Your task to perform on an android device: Empty the shopping cart on ebay. Add "acer predator" to the cart on ebay Image 0: 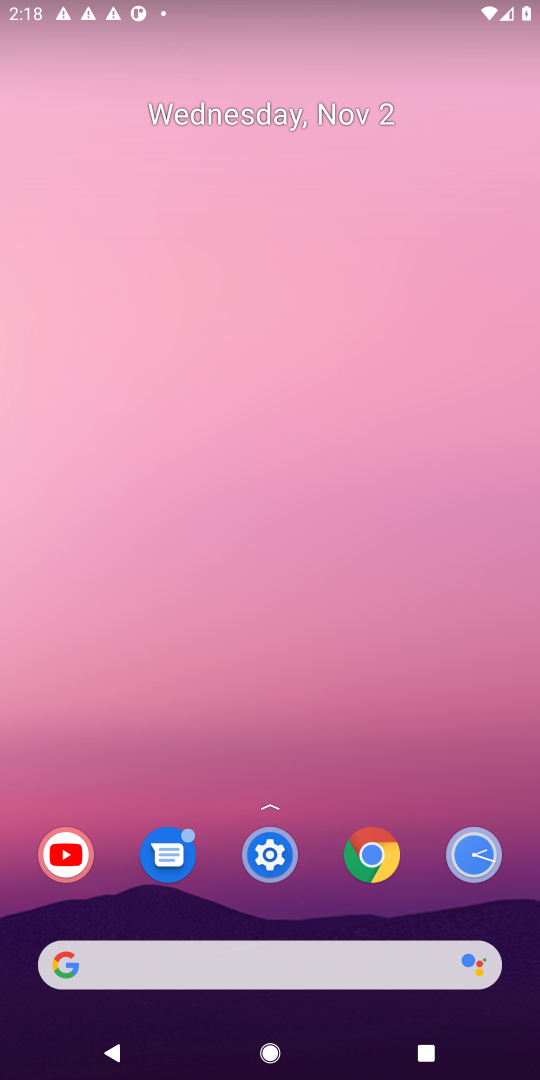
Step 0: click (180, 970)
Your task to perform on an android device: Empty the shopping cart on ebay. Add "acer predator" to the cart on ebay Image 1: 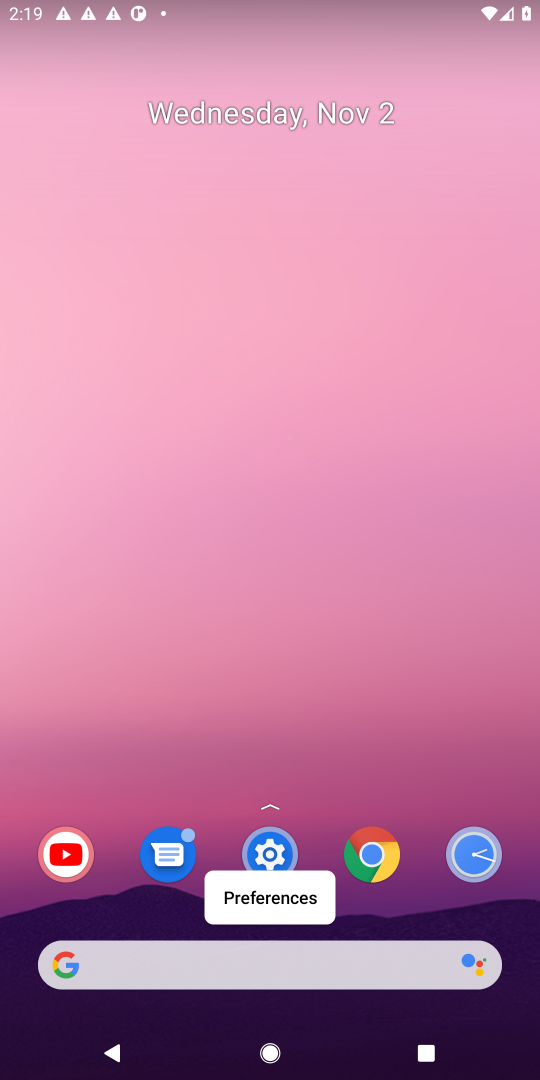
Step 1: click (180, 970)
Your task to perform on an android device: Empty the shopping cart on ebay. Add "acer predator" to the cart on ebay Image 2: 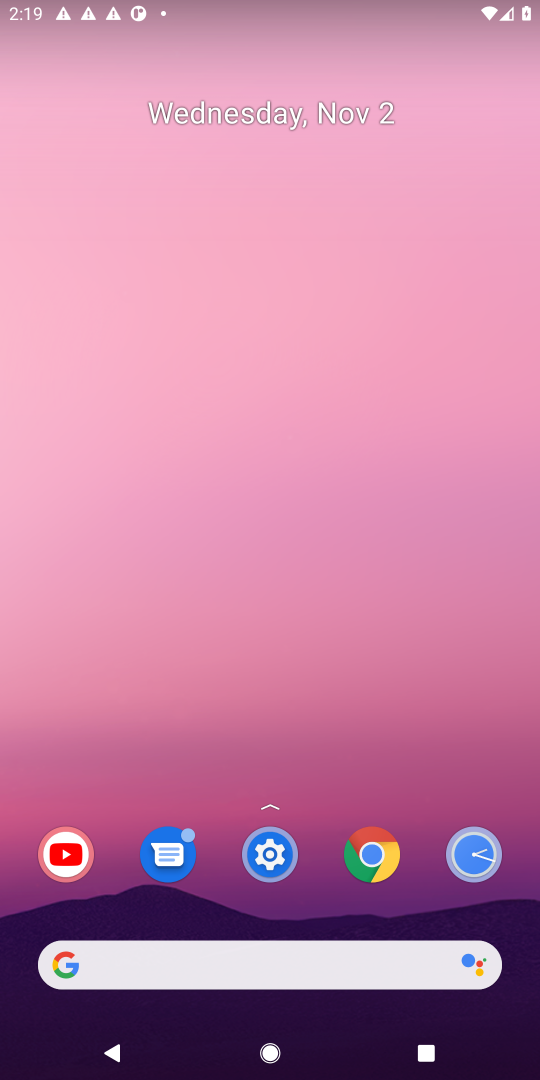
Step 2: click (180, 970)
Your task to perform on an android device: Empty the shopping cart on ebay. Add "acer predator" to the cart on ebay Image 3: 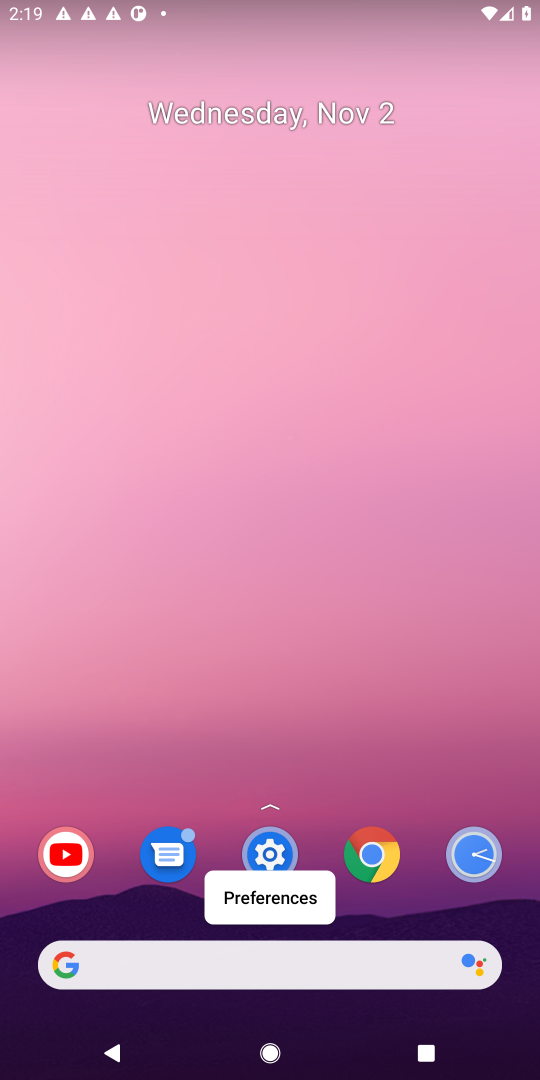
Step 3: click (180, 970)
Your task to perform on an android device: Empty the shopping cart on ebay. Add "acer predator" to the cart on ebay Image 4: 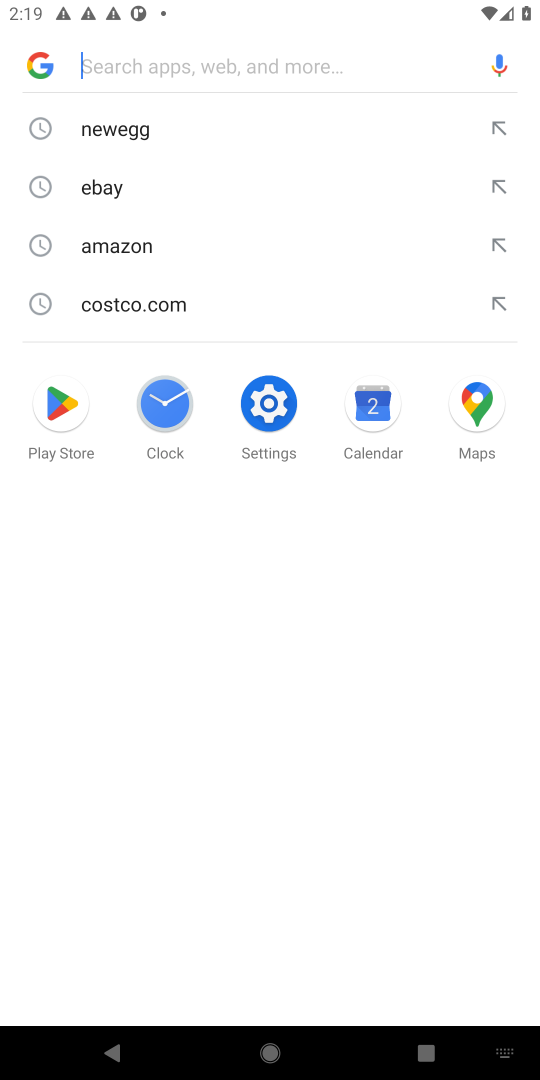
Step 4: type " ebay"
Your task to perform on an android device: Empty the shopping cart on ebay. Add "acer predator" to the cart on ebay Image 5: 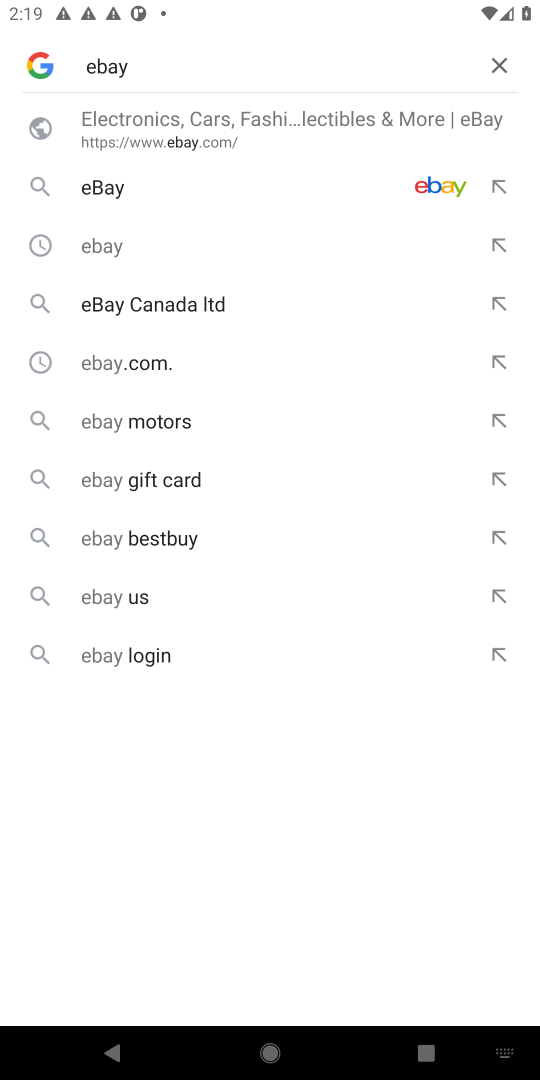
Step 5: type ""
Your task to perform on an android device: Empty the shopping cart on ebay. Add "acer predator" to the cart on ebay Image 6: 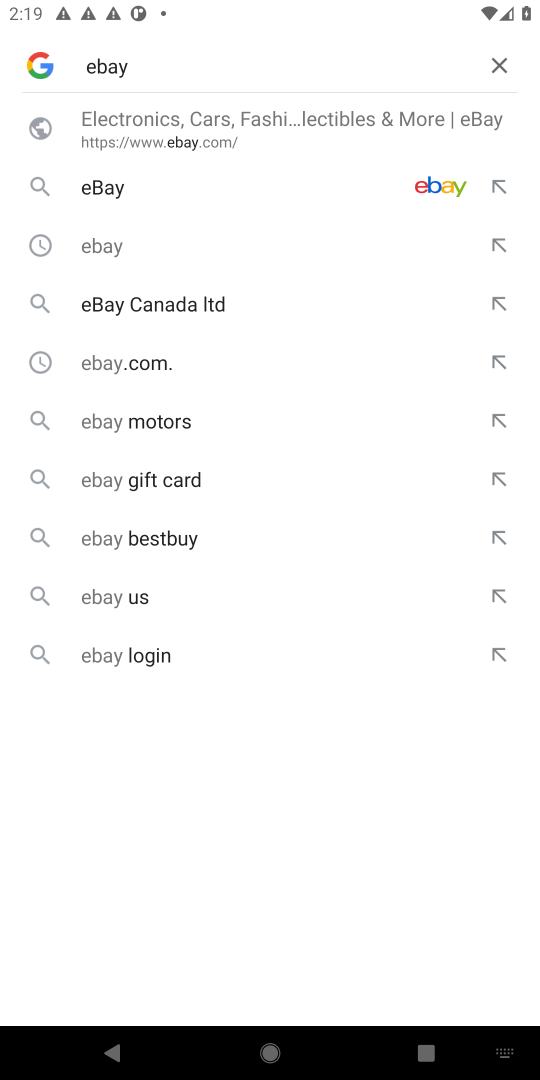
Step 6: press enter
Your task to perform on an android device: Empty the shopping cart on ebay. Add "acer predator" to the cart on ebay Image 7: 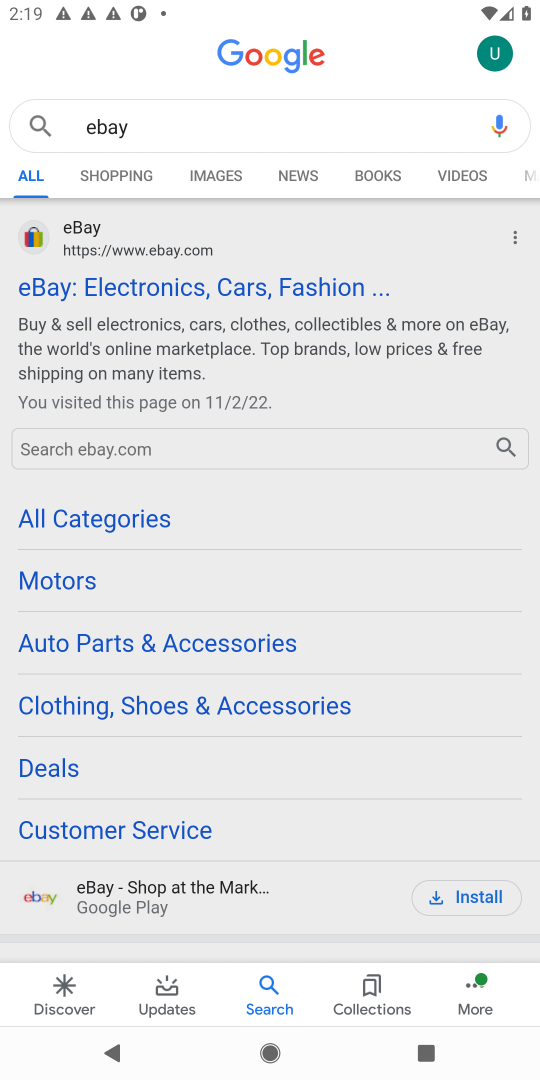
Step 7: click (143, 292)
Your task to perform on an android device: Empty the shopping cart on ebay. Add "acer predator" to the cart on ebay Image 8: 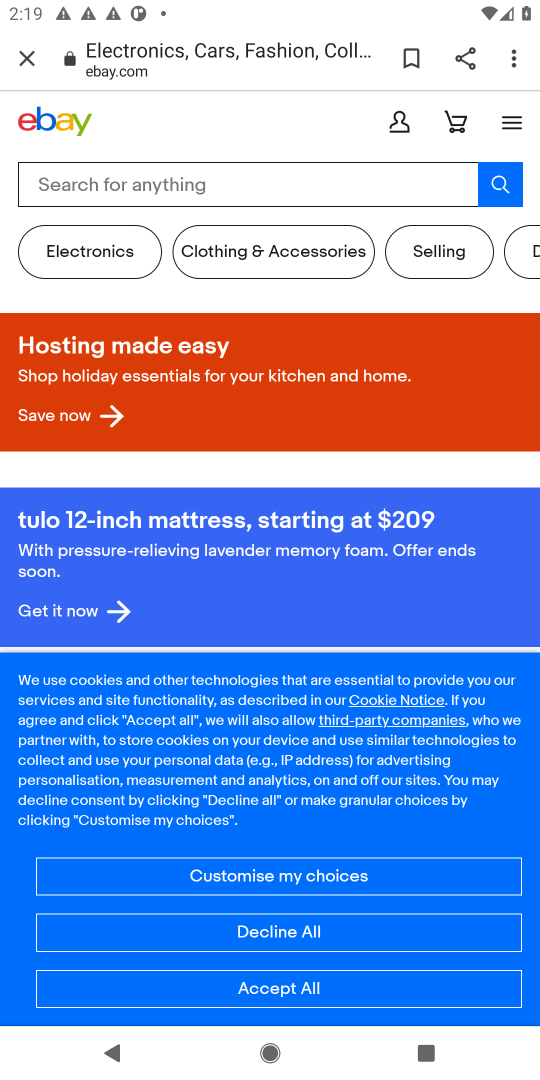
Step 8: click (280, 991)
Your task to perform on an android device: Empty the shopping cart on ebay. Add "acer predator" to the cart on ebay Image 9: 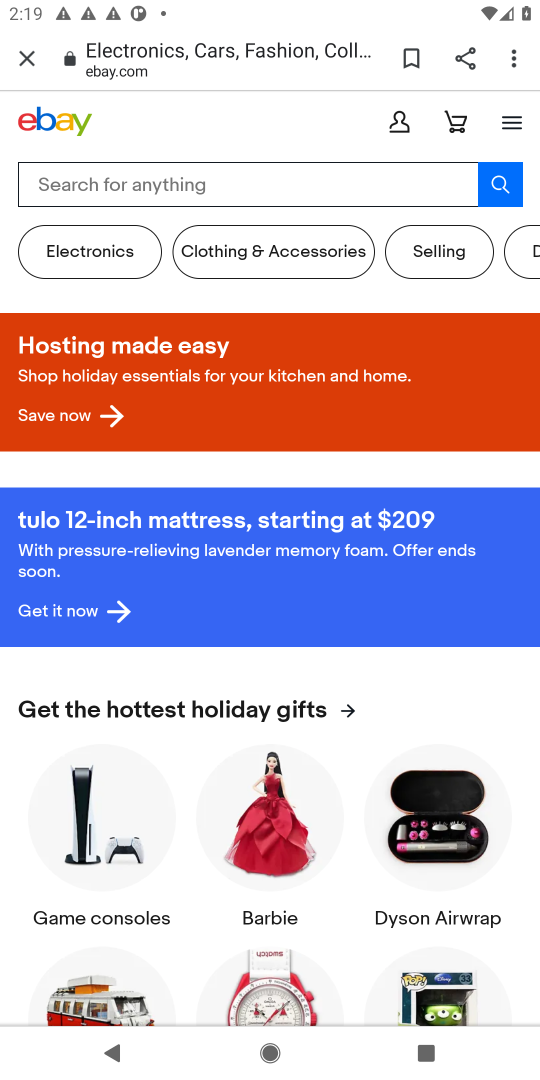
Step 9: click (137, 189)
Your task to perform on an android device: Empty the shopping cart on ebay. Add "acer predator" to the cart on ebay Image 10: 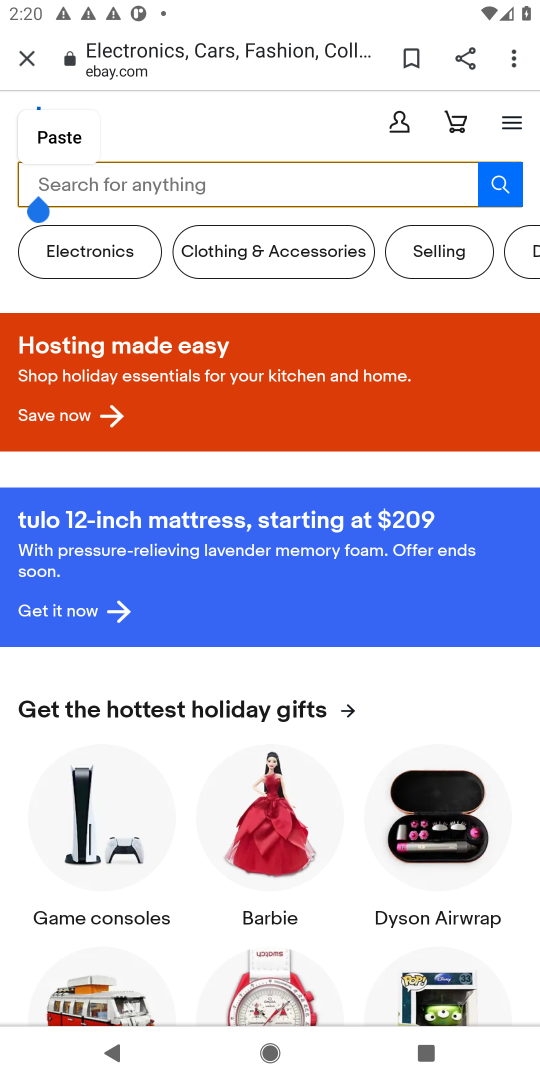
Step 10: type "acer predator"
Your task to perform on an android device: Empty the shopping cart on ebay. Add "acer predator" to the cart on ebay Image 11: 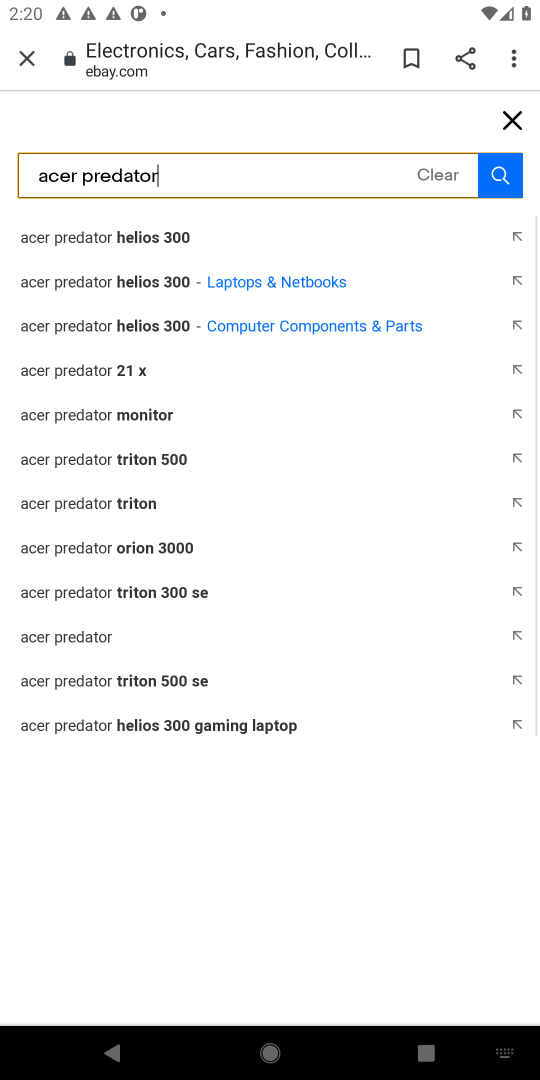
Step 11: type ""
Your task to perform on an android device: Empty the shopping cart on ebay. Add "acer predator" to the cart on ebay Image 12: 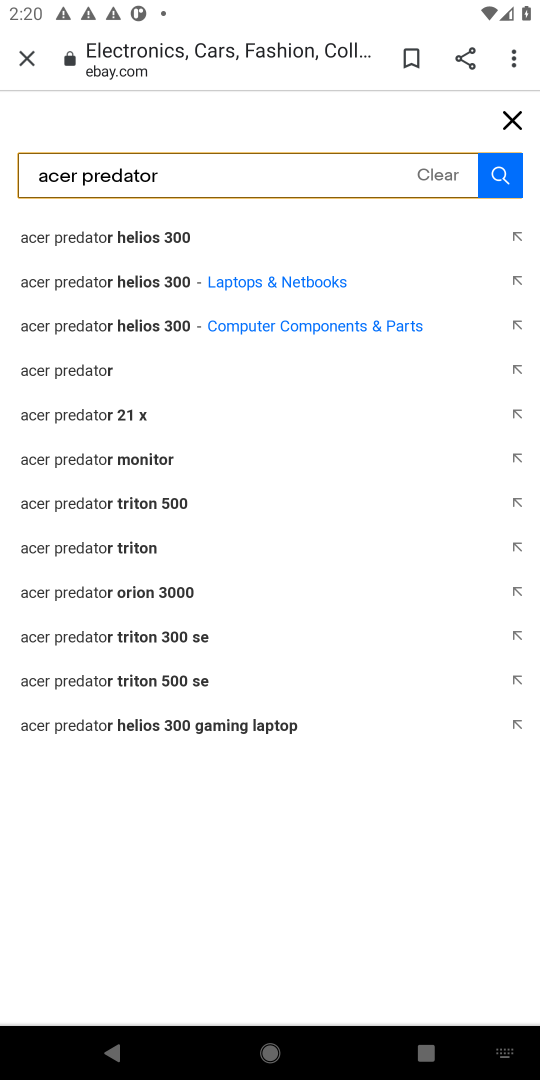
Step 12: press enter
Your task to perform on an android device: Empty the shopping cart on ebay. Add "acer predator" to the cart on ebay Image 13: 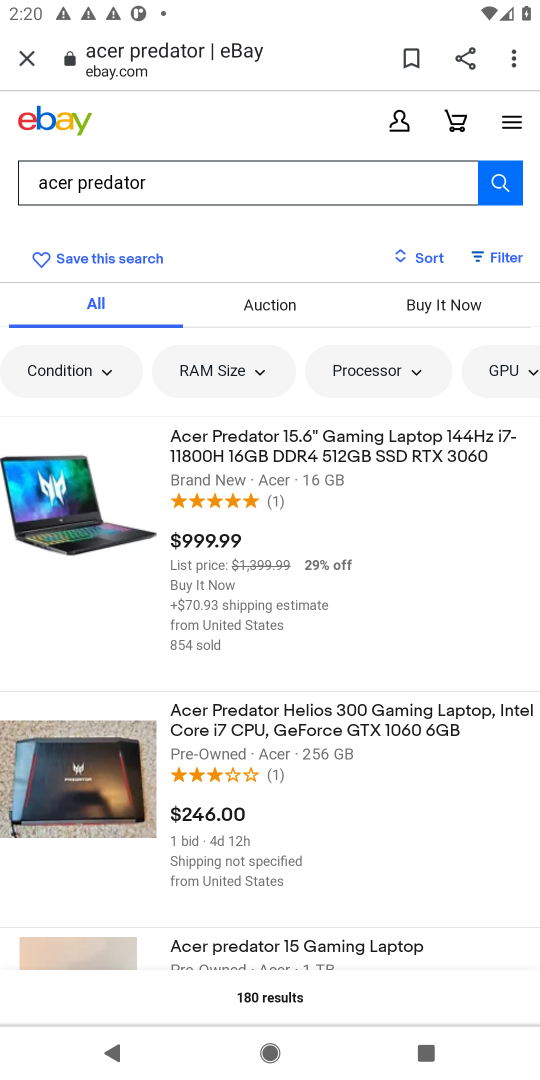
Step 13: press enter
Your task to perform on an android device: Empty the shopping cart on ebay. Add "acer predator" to the cart on ebay Image 14: 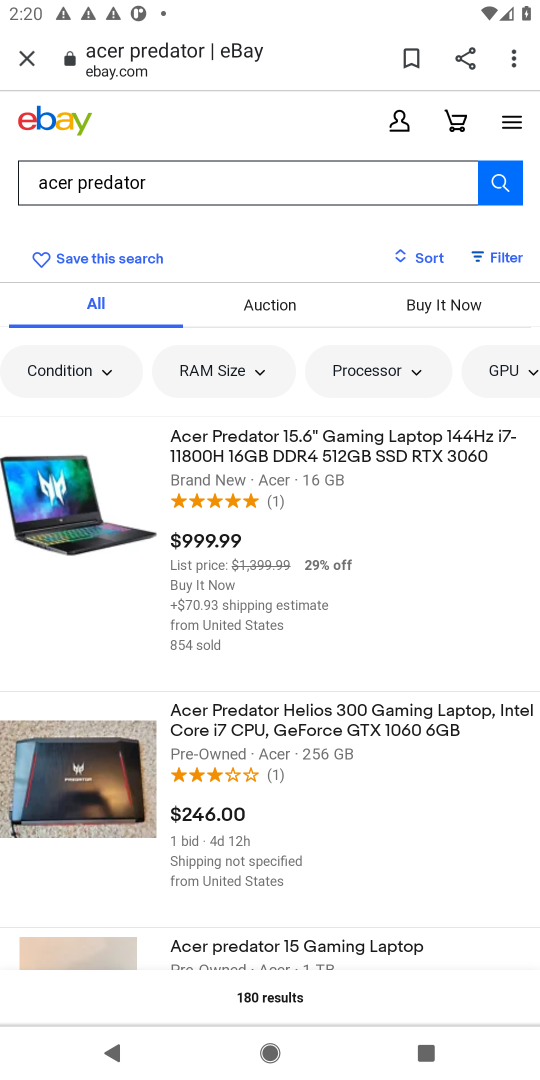
Step 14: click (261, 440)
Your task to perform on an android device: Empty the shopping cart on ebay. Add "acer predator" to the cart on ebay Image 15: 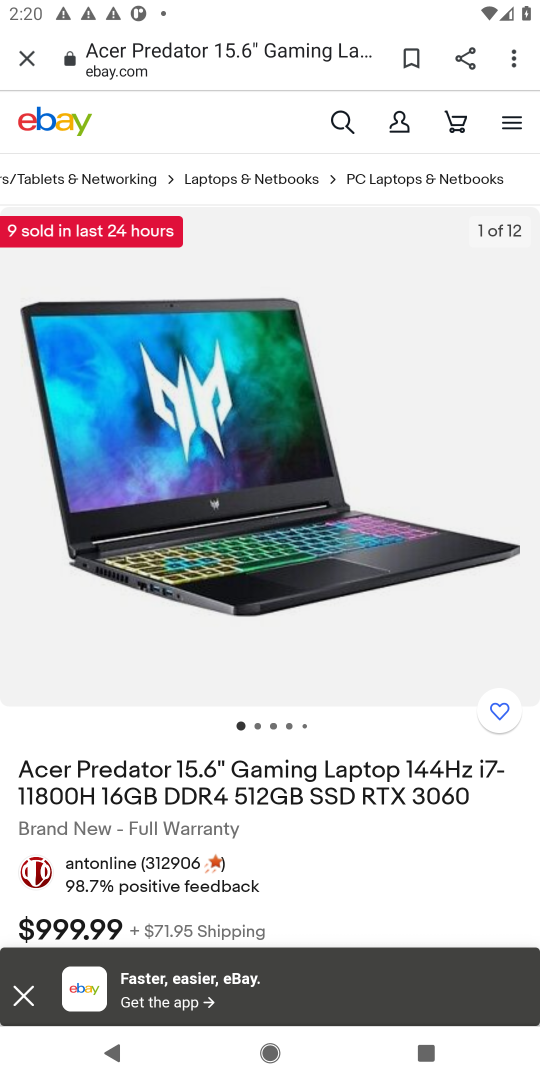
Step 15: drag from (396, 894) to (396, 248)
Your task to perform on an android device: Empty the shopping cart on ebay. Add "acer predator" to the cart on ebay Image 16: 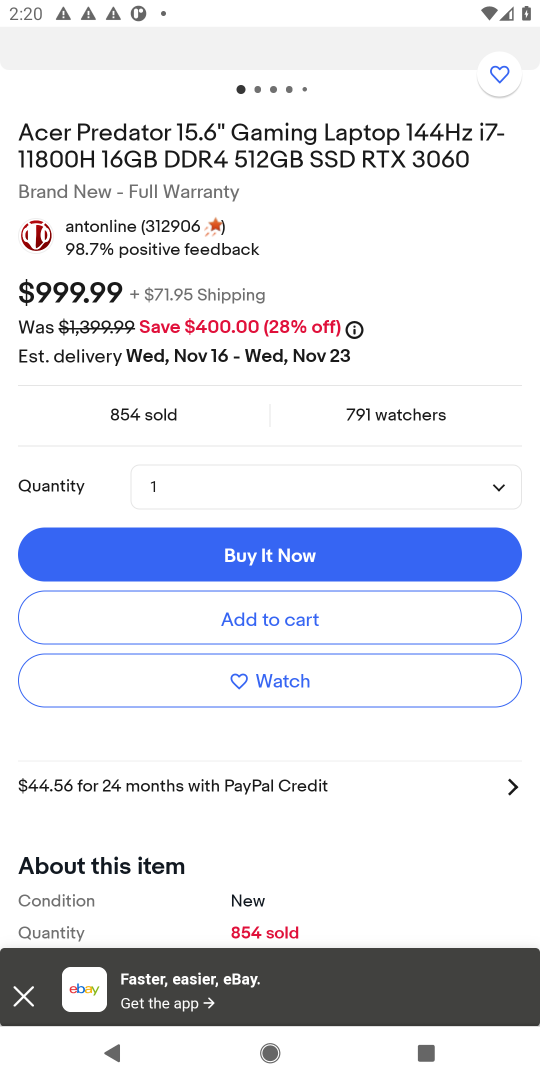
Step 16: click (264, 620)
Your task to perform on an android device: Empty the shopping cart on ebay. Add "acer predator" to the cart on ebay Image 17: 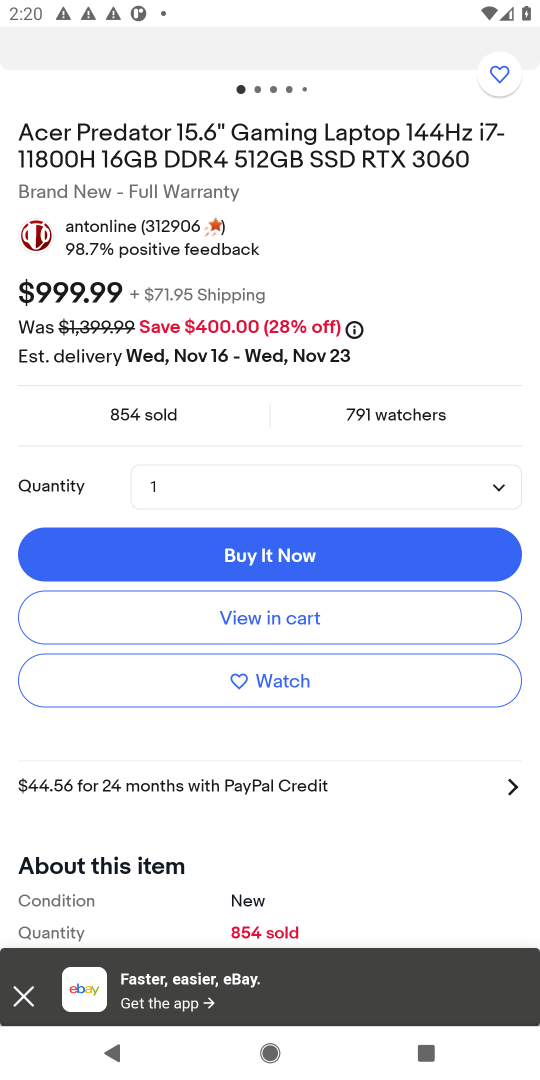
Step 17: click (264, 620)
Your task to perform on an android device: Empty the shopping cart on ebay. Add "acer predator" to the cart on ebay Image 18: 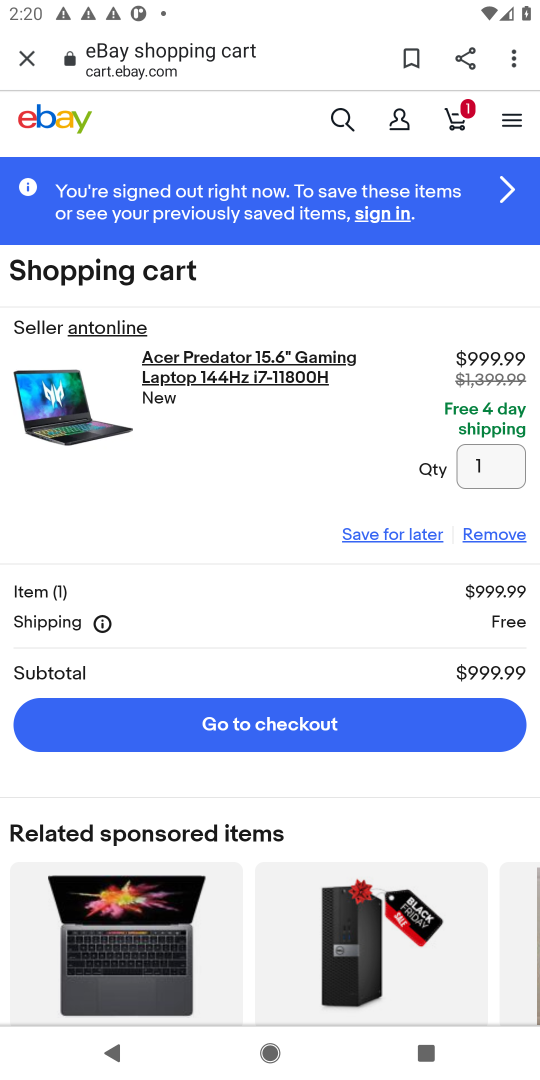
Step 18: click (328, 729)
Your task to perform on an android device: Empty the shopping cart on ebay. Add "acer predator" to the cart on ebay Image 19: 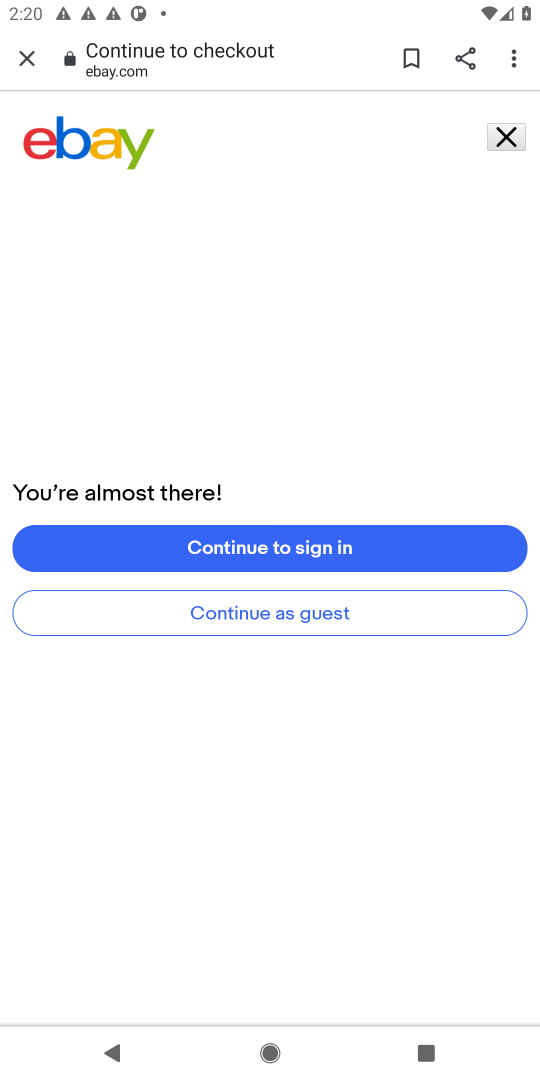
Step 19: task complete